Your task to perform on an android device: open sync settings in chrome Image 0: 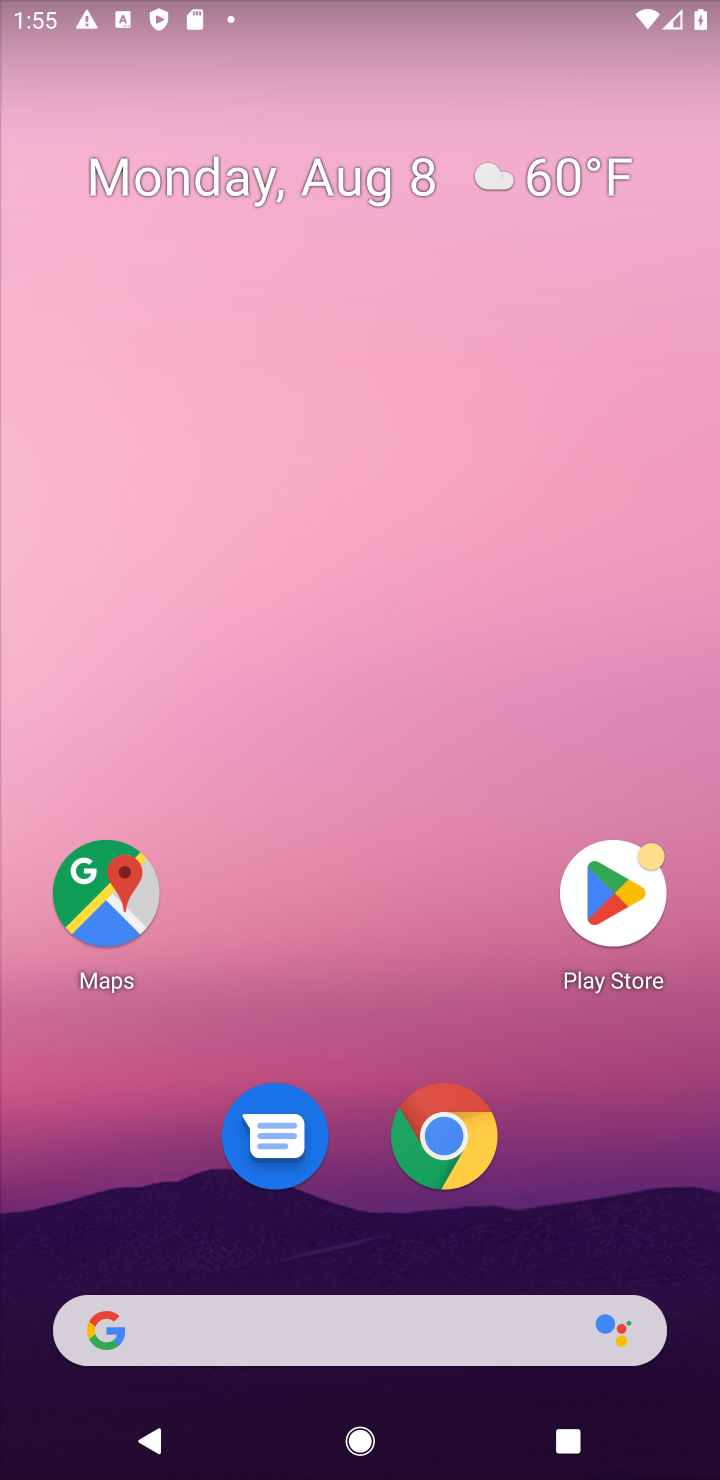
Step 0: click (453, 1148)
Your task to perform on an android device: open sync settings in chrome Image 1: 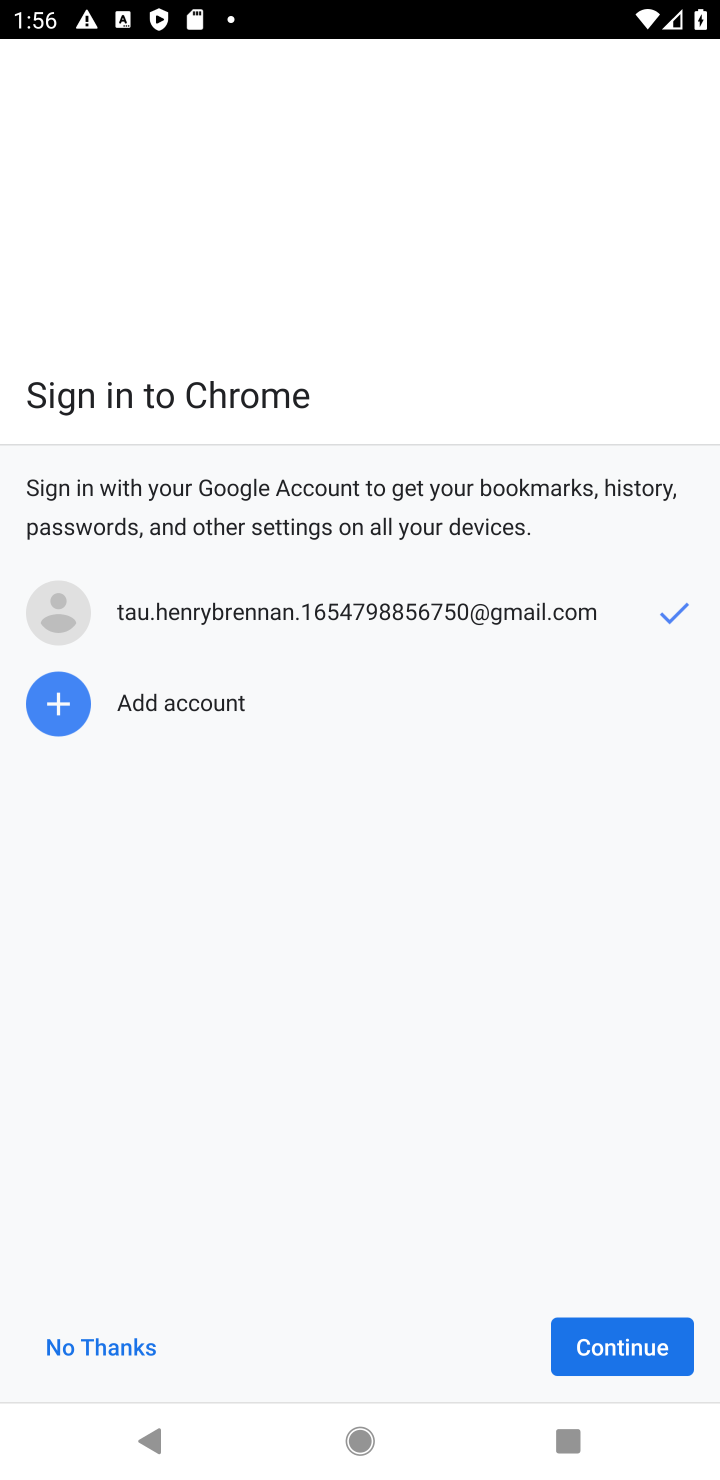
Step 1: click (657, 1346)
Your task to perform on an android device: open sync settings in chrome Image 2: 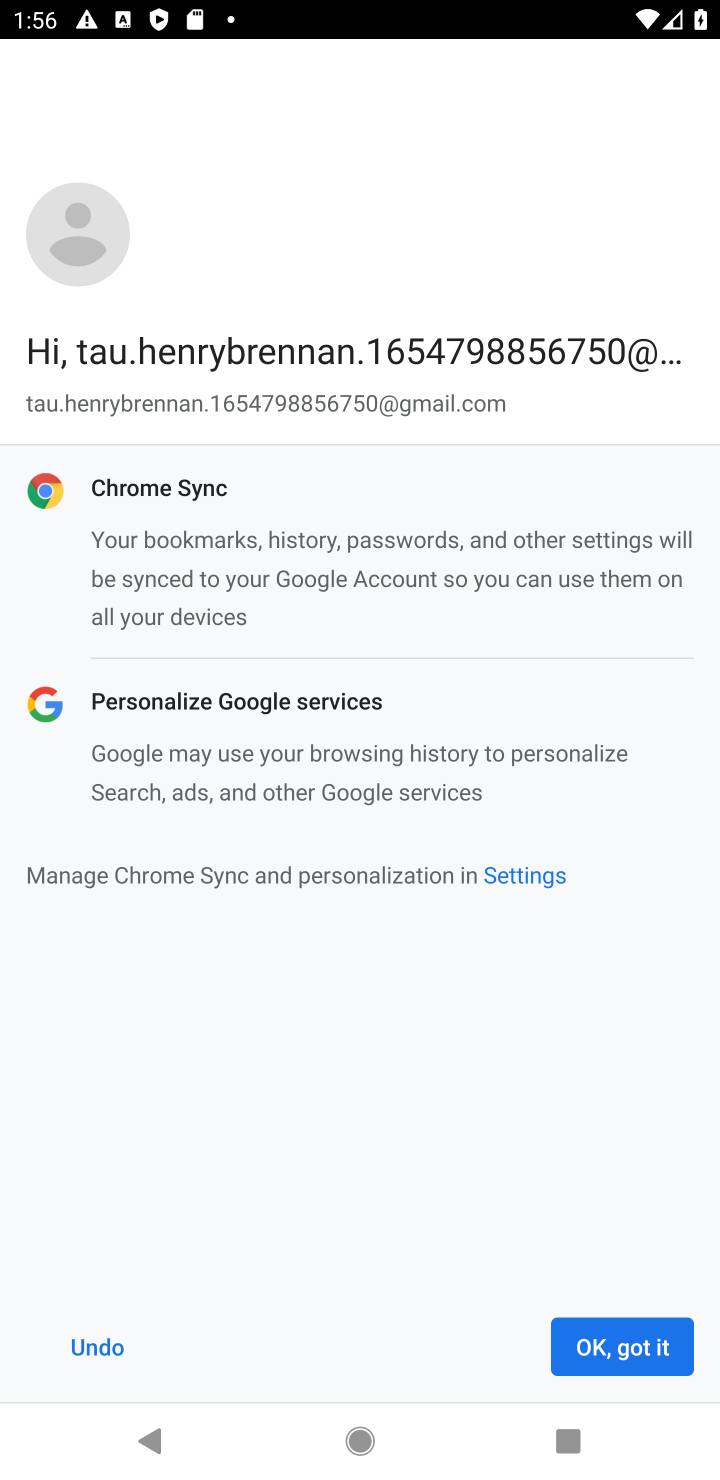
Step 2: click (637, 1334)
Your task to perform on an android device: open sync settings in chrome Image 3: 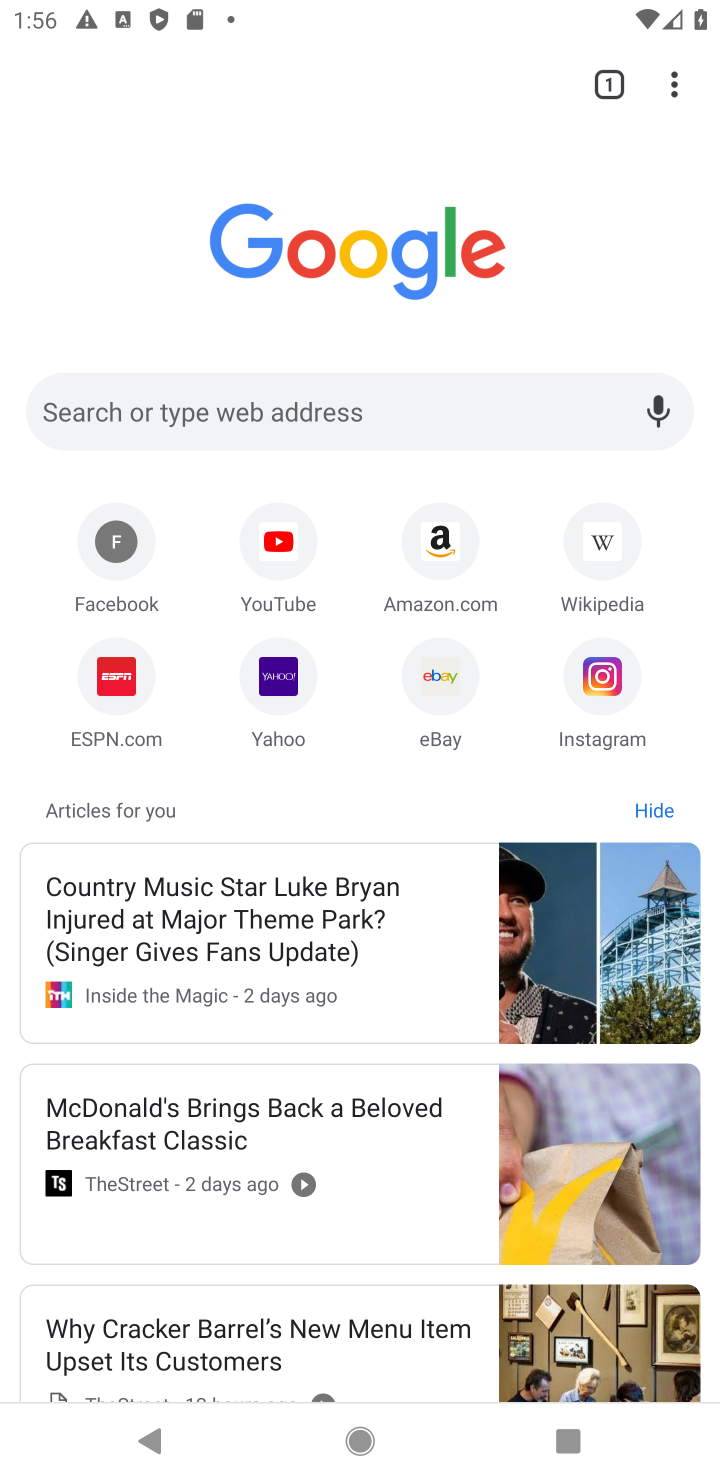
Step 3: click (680, 79)
Your task to perform on an android device: open sync settings in chrome Image 4: 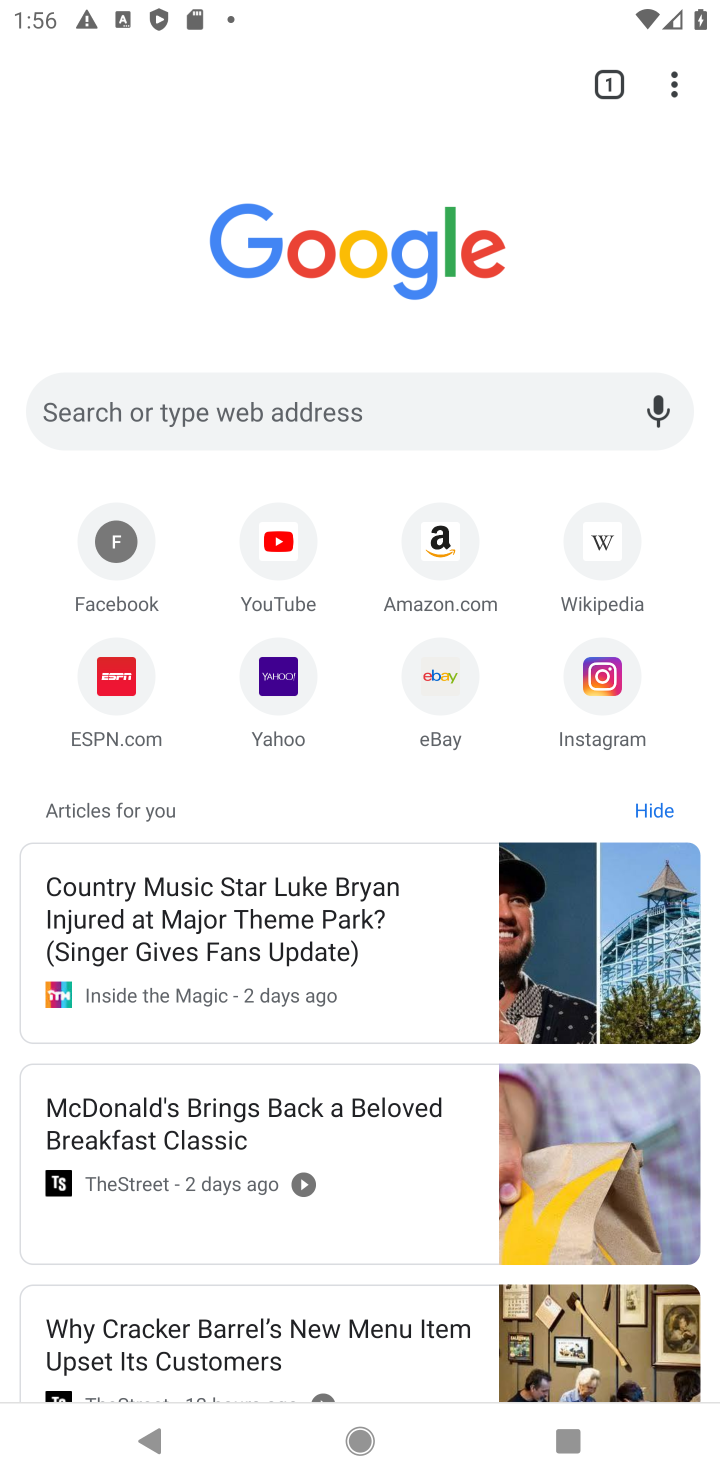
Step 4: click (679, 75)
Your task to perform on an android device: open sync settings in chrome Image 5: 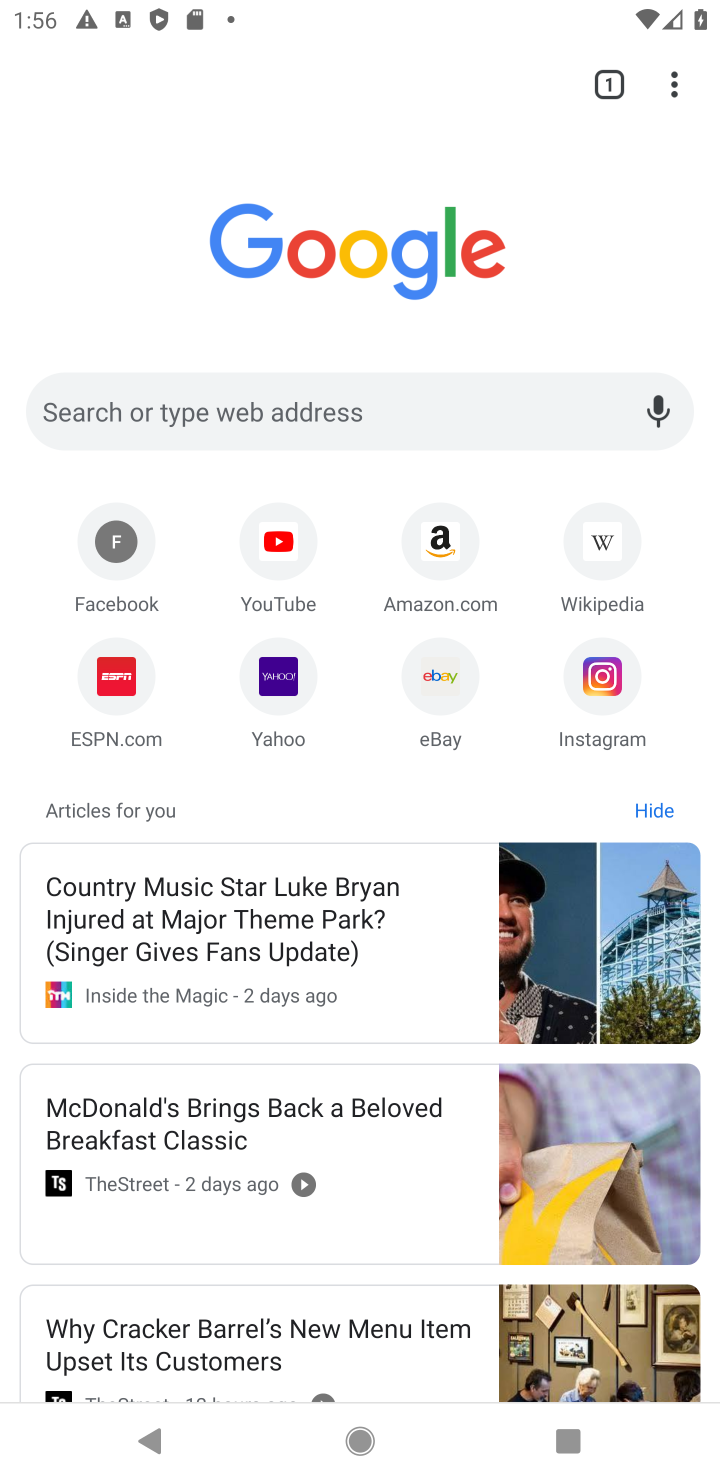
Step 5: click (679, 81)
Your task to perform on an android device: open sync settings in chrome Image 6: 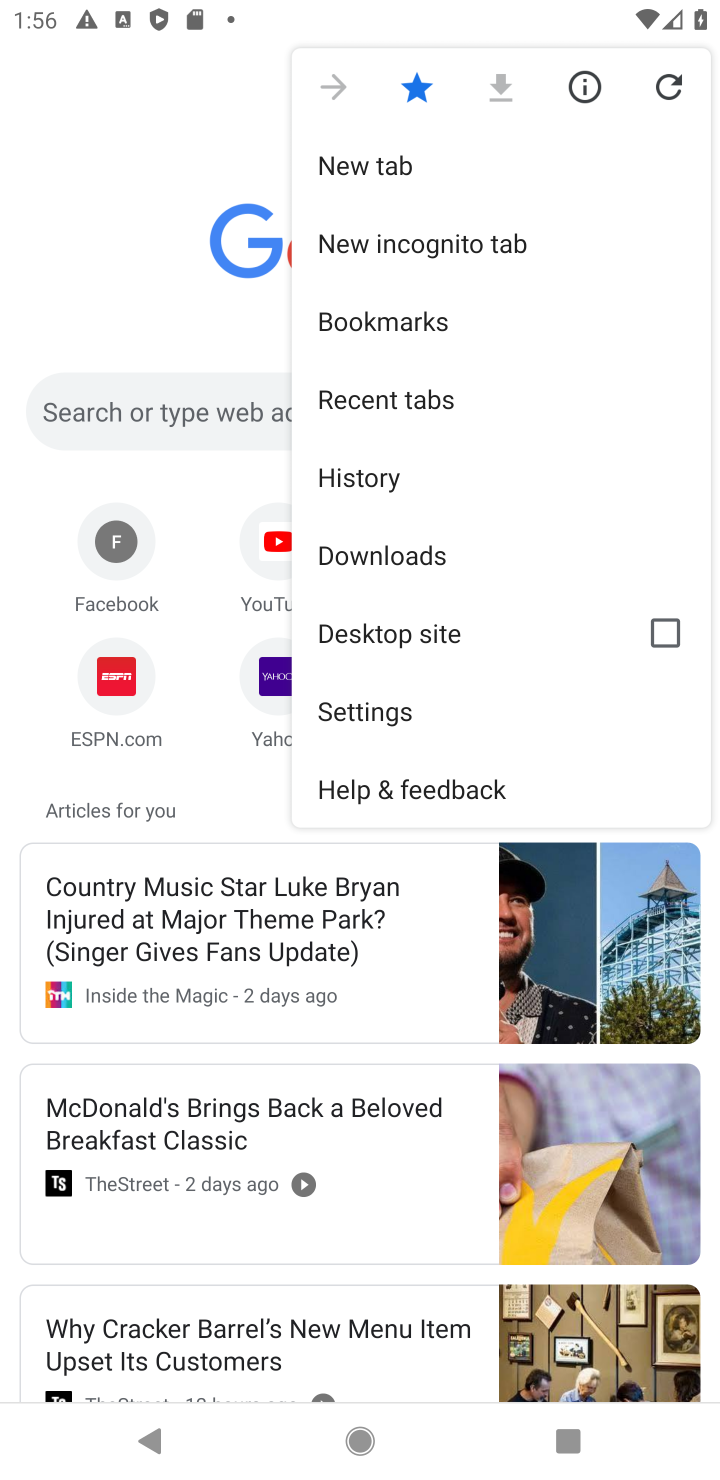
Step 6: click (372, 698)
Your task to perform on an android device: open sync settings in chrome Image 7: 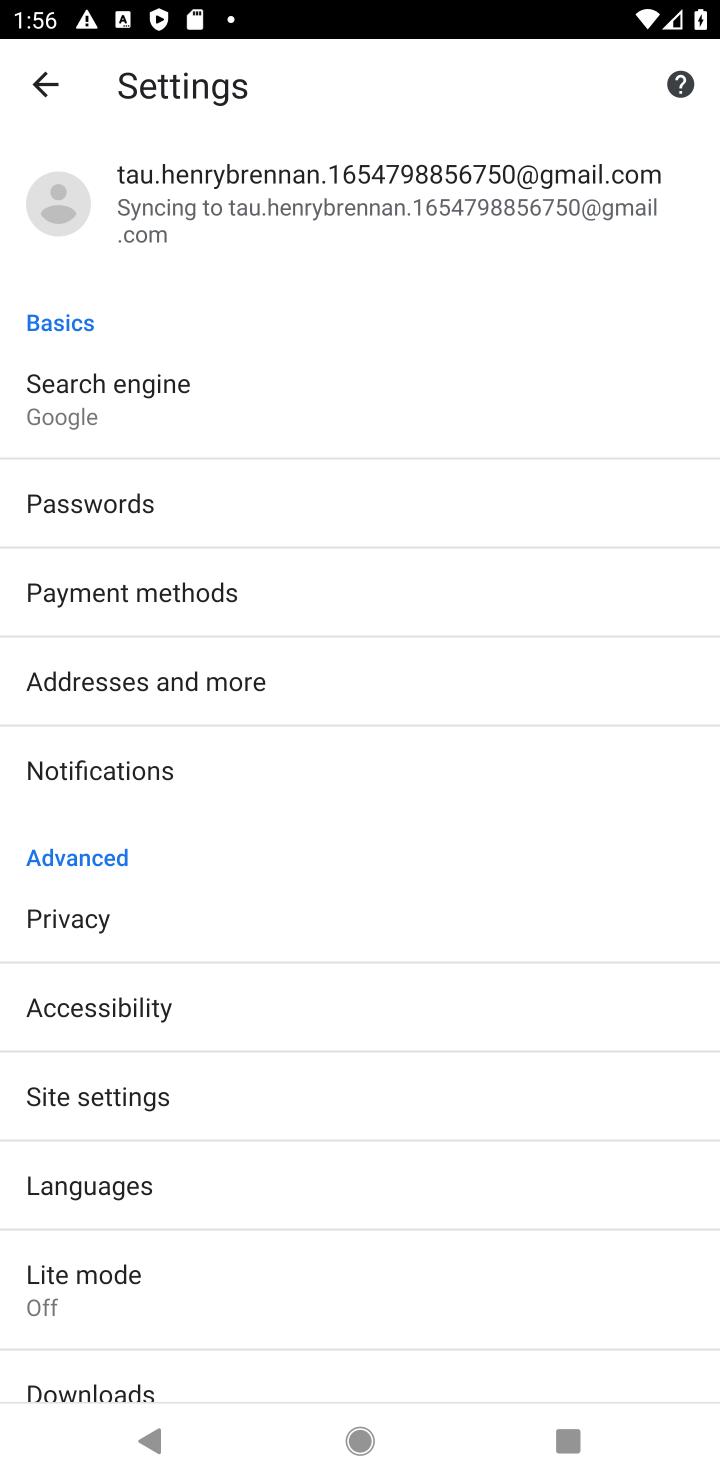
Step 7: click (117, 1090)
Your task to perform on an android device: open sync settings in chrome Image 8: 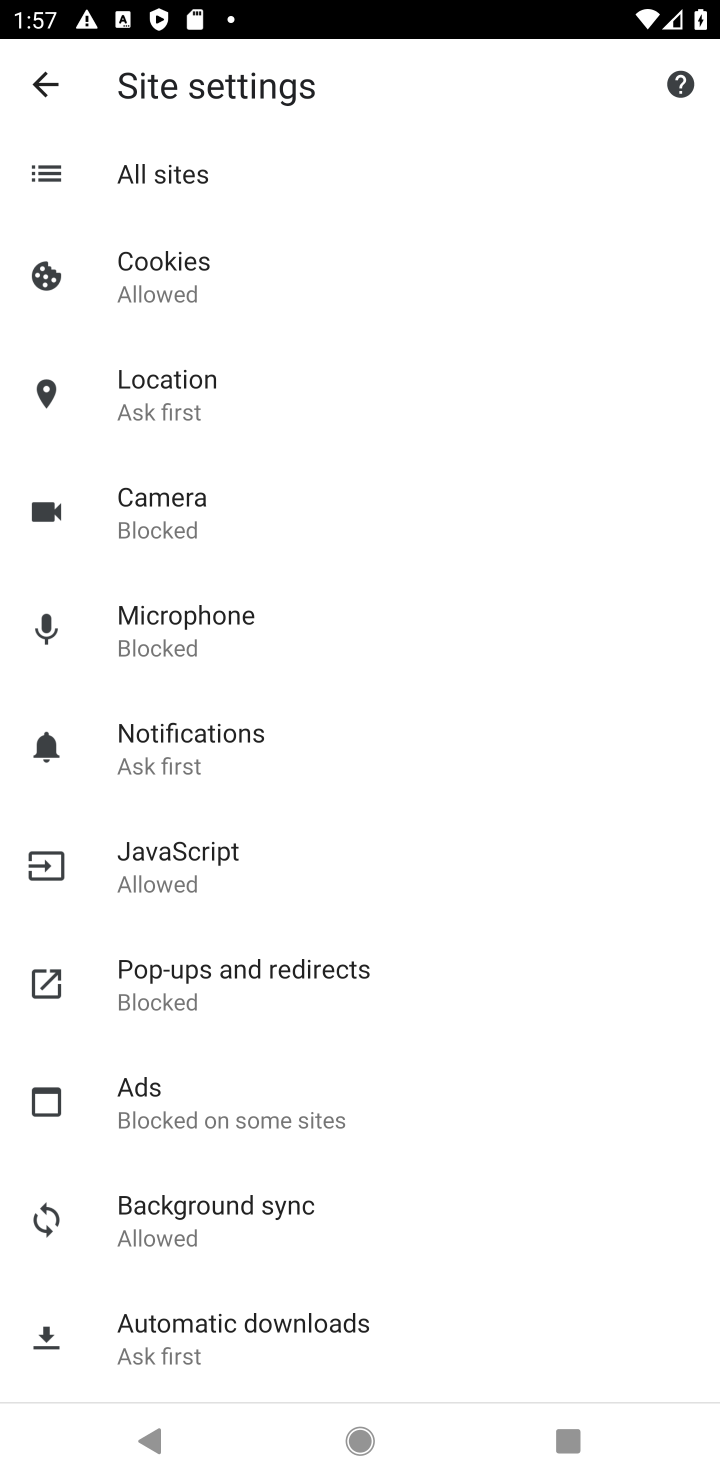
Step 8: drag from (511, 1303) to (509, 408)
Your task to perform on an android device: open sync settings in chrome Image 9: 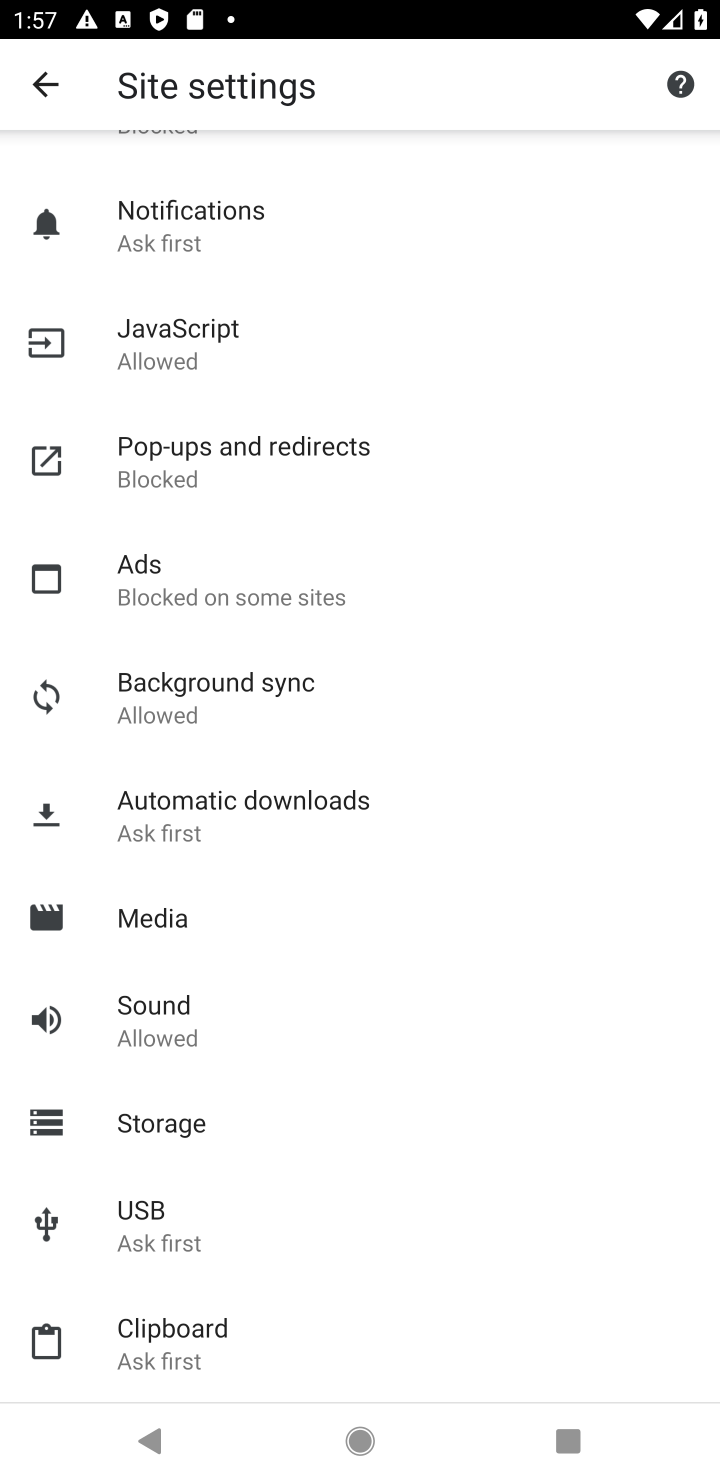
Step 9: drag from (509, 261) to (668, 1152)
Your task to perform on an android device: open sync settings in chrome Image 10: 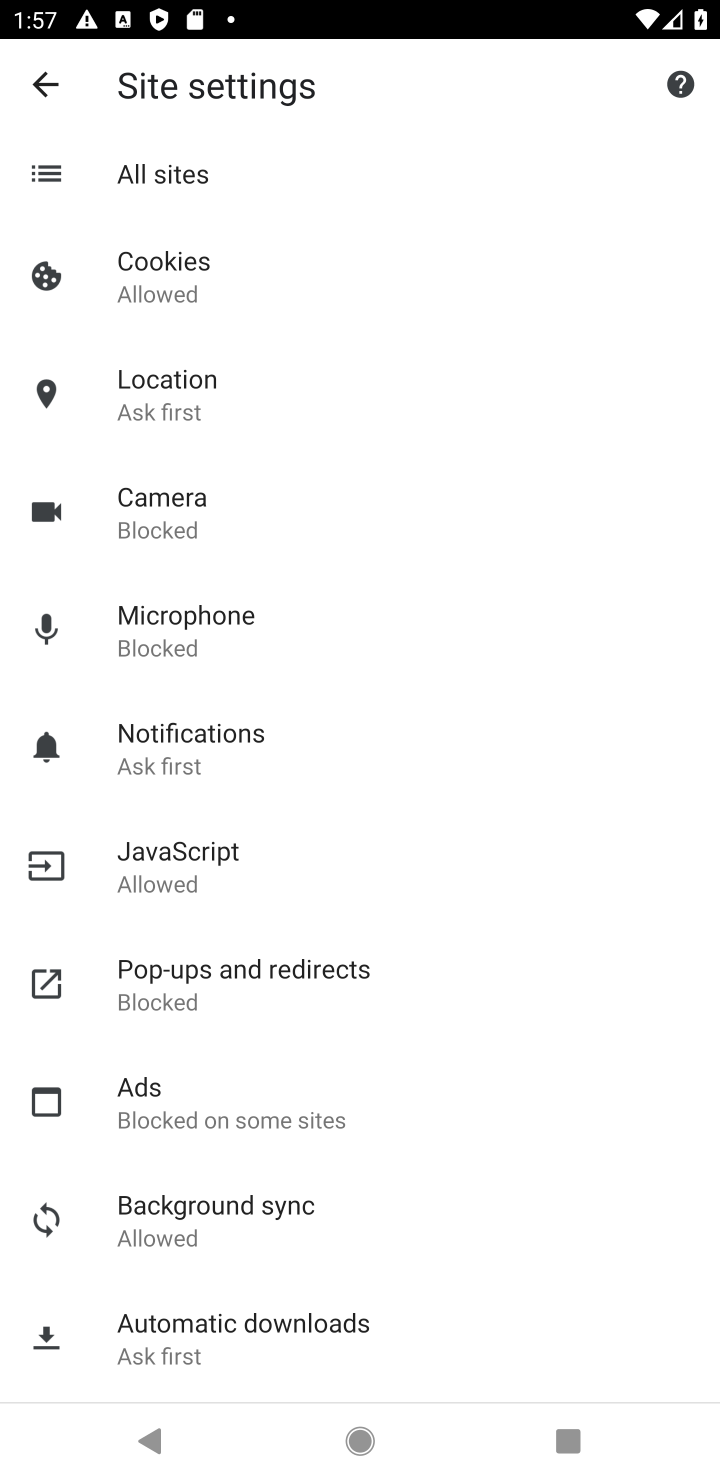
Step 10: click (179, 1218)
Your task to perform on an android device: open sync settings in chrome Image 11: 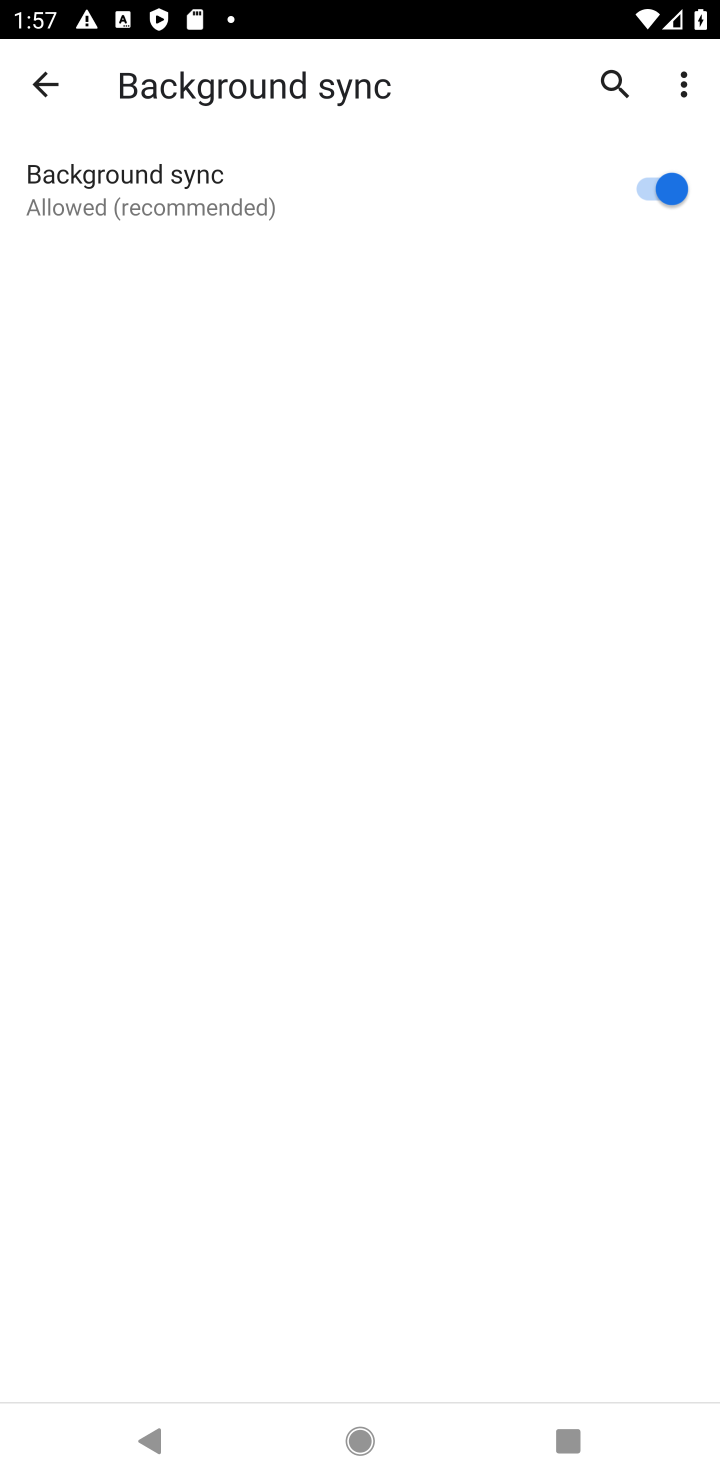
Step 11: task complete